Your task to perform on an android device: Open the web browser Image 0: 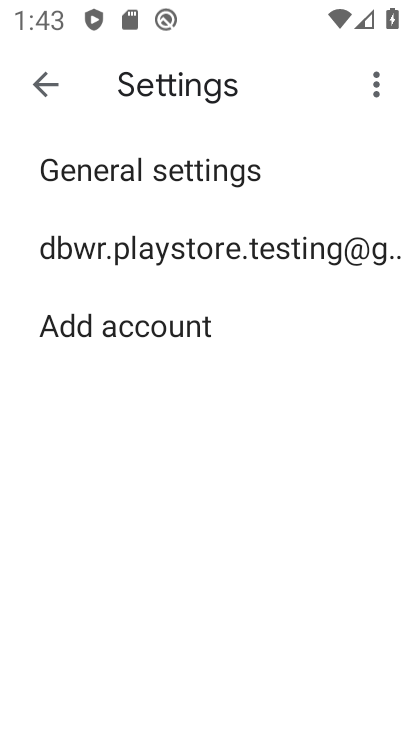
Step 0: press back button
Your task to perform on an android device: Open the web browser Image 1: 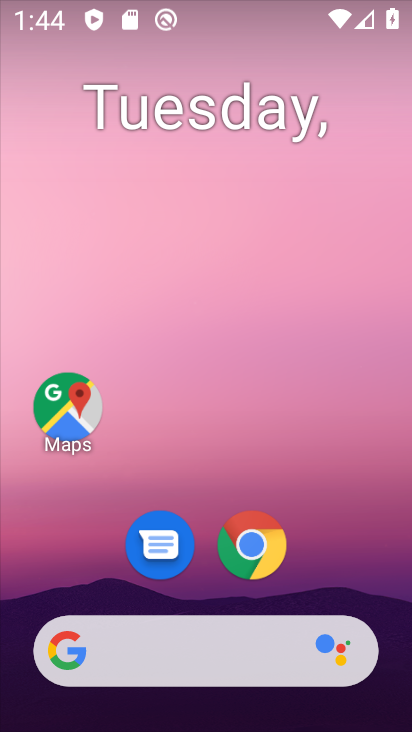
Step 1: drag from (340, 559) to (280, 2)
Your task to perform on an android device: Open the web browser Image 2: 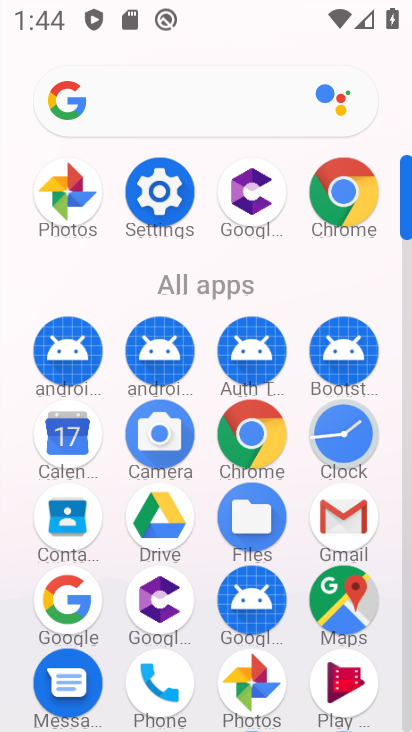
Step 2: click (343, 199)
Your task to perform on an android device: Open the web browser Image 3: 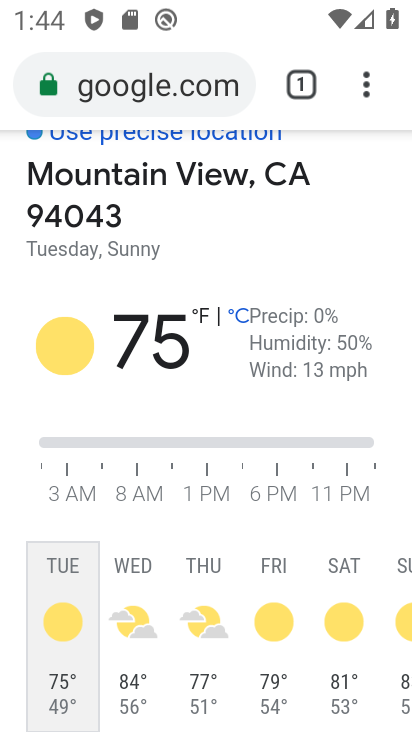
Step 3: task complete